Your task to perform on an android device: Search for sushi restaurants on Maps Image 0: 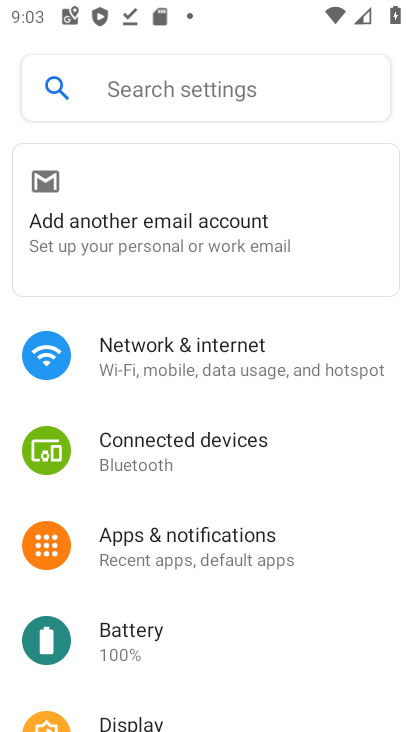
Step 0: press back button
Your task to perform on an android device: Search for sushi restaurants on Maps Image 1: 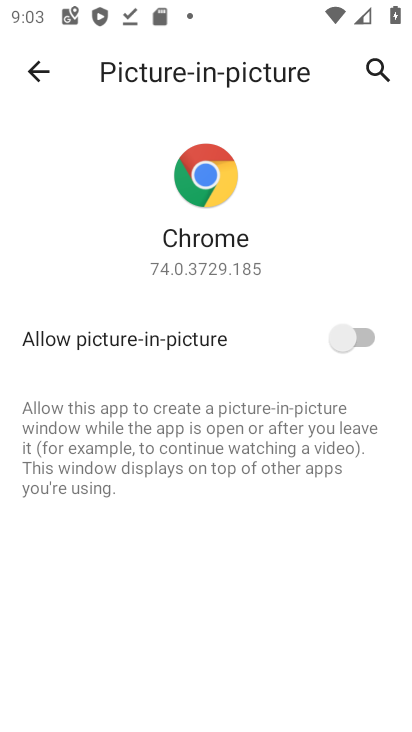
Step 1: press home button
Your task to perform on an android device: Search for sushi restaurants on Maps Image 2: 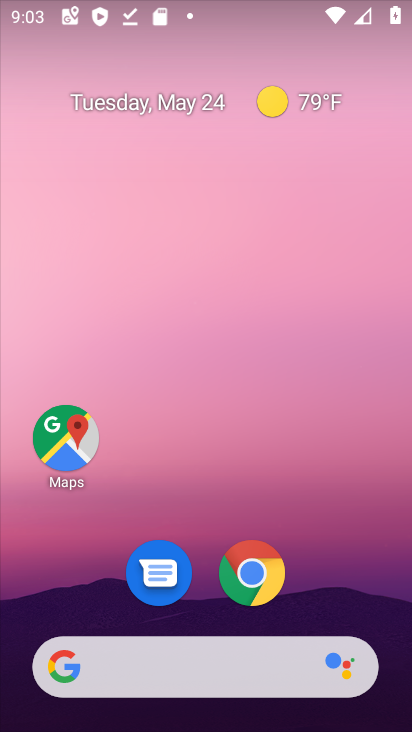
Step 2: drag from (309, 565) to (257, 0)
Your task to perform on an android device: Search for sushi restaurants on Maps Image 3: 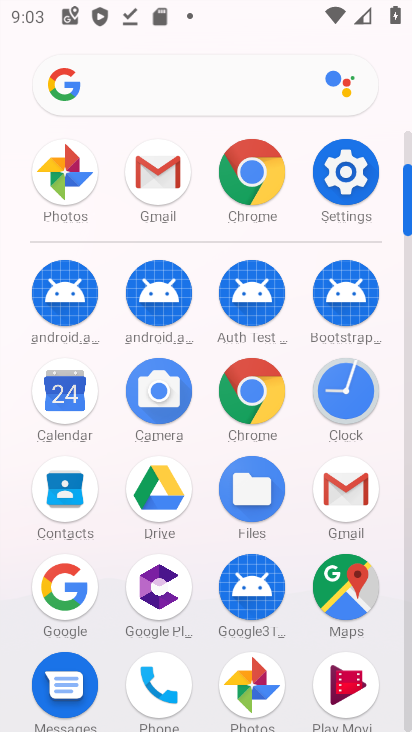
Step 3: click (344, 595)
Your task to perform on an android device: Search for sushi restaurants on Maps Image 4: 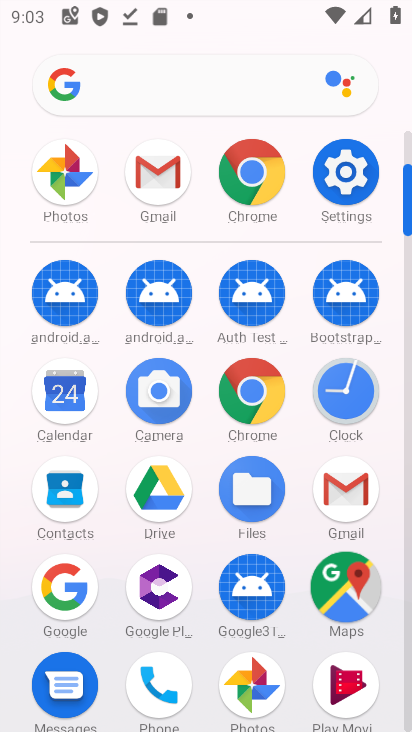
Step 4: click (364, 585)
Your task to perform on an android device: Search for sushi restaurants on Maps Image 5: 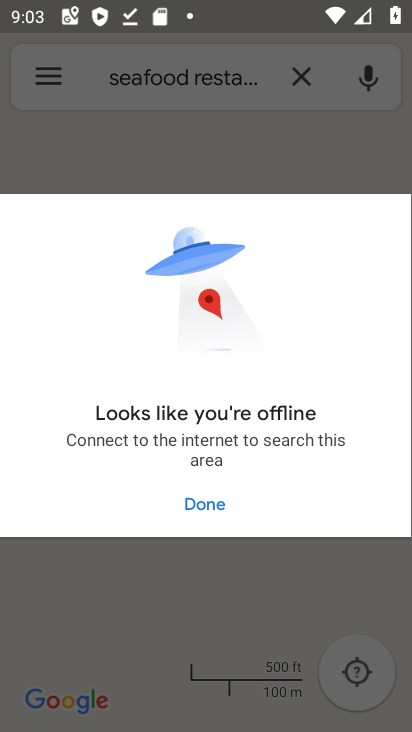
Step 5: task complete